Your task to perform on an android device: toggle improve location accuracy Image 0: 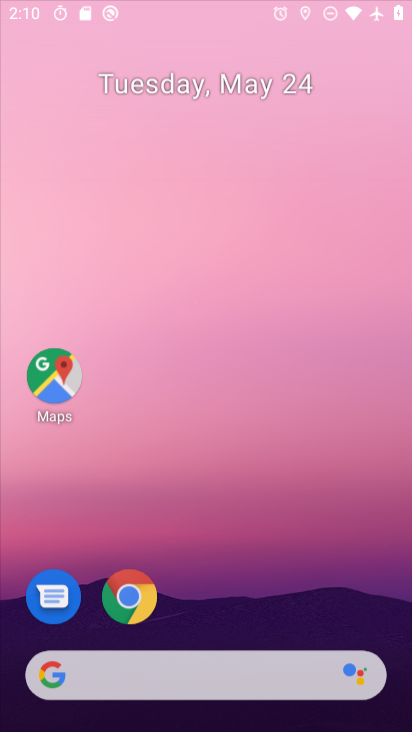
Step 0: click (241, 126)
Your task to perform on an android device: toggle improve location accuracy Image 1: 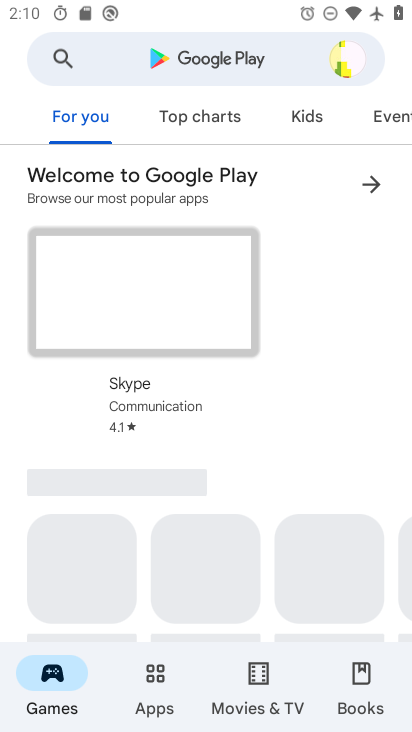
Step 1: press home button
Your task to perform on an android device: toggle improve location accuracy Image 2: 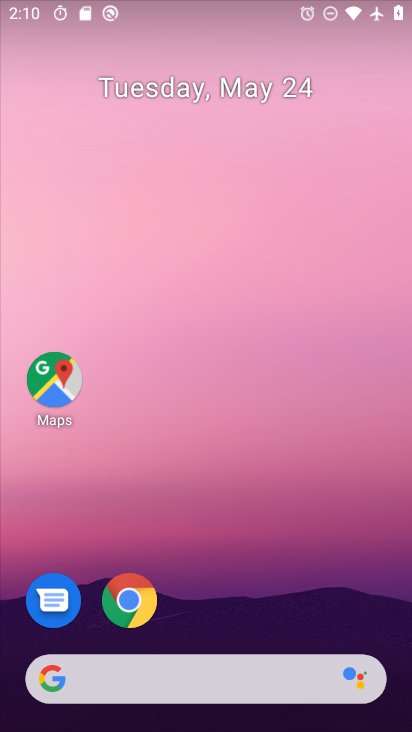
Step 2: drag from (332, 578) to (282, 192)
Your task to perform on an android device: toggle improve location accuracy Image 3: 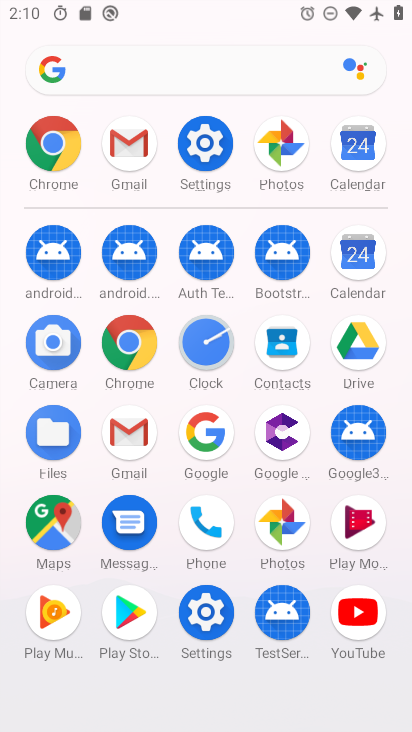
Step 3: click (203, 136)
Your task to perform on an android device: toggle improve location accuracy Image 4: 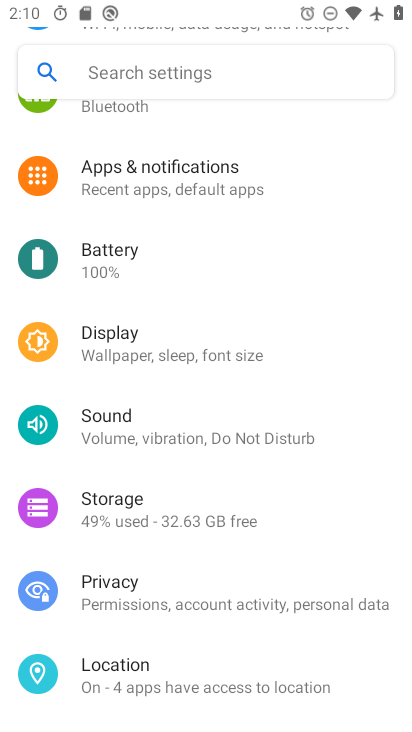
Step 4: drag from (199, 655) to (226, 591)
Your task to perform on an android device: toggle improve location accuracy Image 5: 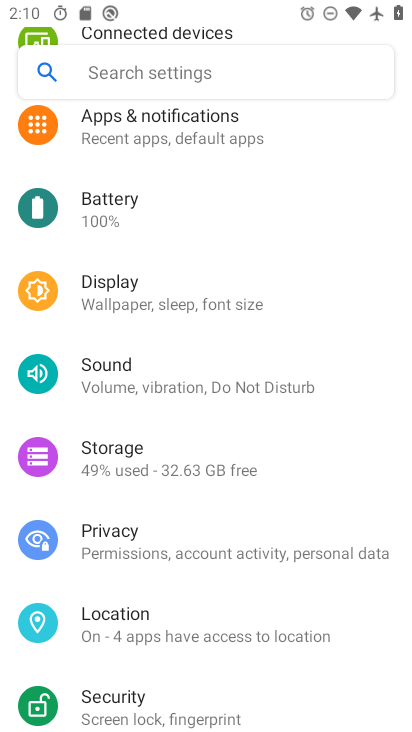
Step 5: click (185, 636)
Your task to perform on an android device: toggle improve location accuracy Image 6: 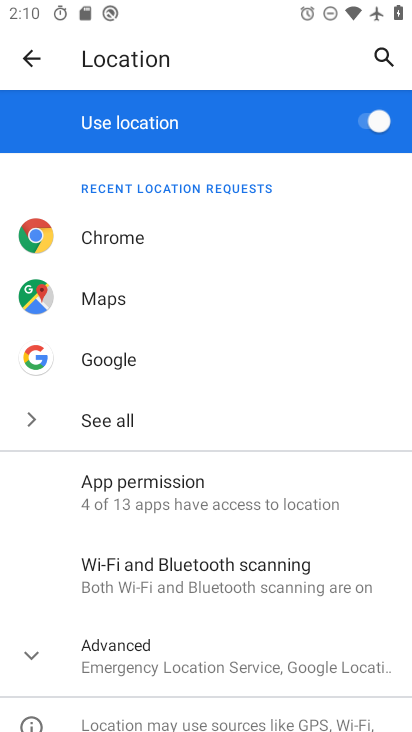
Step 6: drag from (243, 599) to (313, 155)
Your task to perform on an android device: toggle improve location accuracy Image 7: 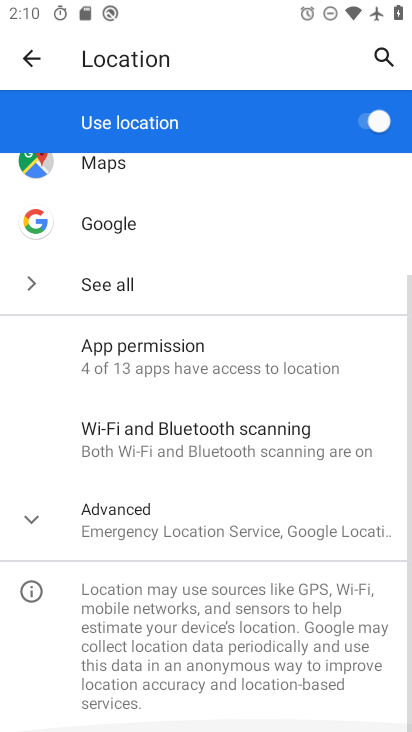
Step 7: click (141, 502)
Your task to perform on an android device: toggle improve location accuracy Image 8: 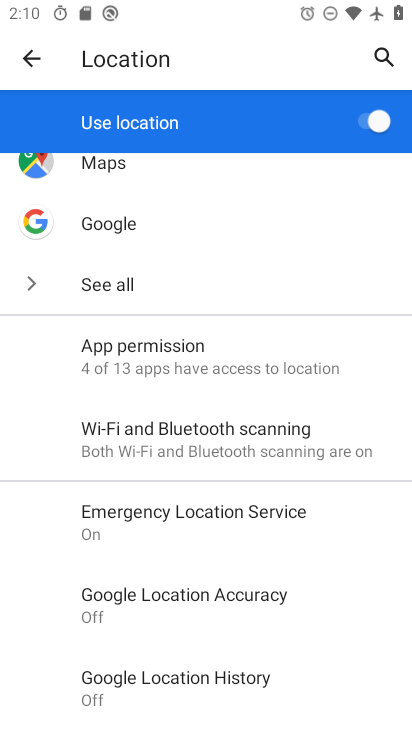
Step 8: drag from (318, 634) to (351, 314)
Your task to perform on an android device: toggle improve location accuracy Image 9: 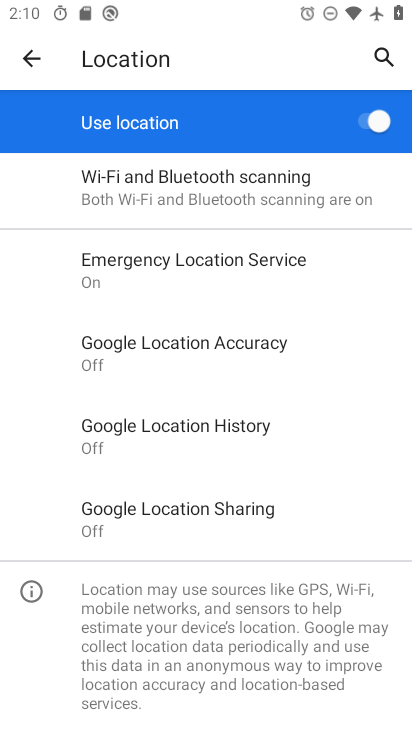
Step 9: click (263, 348)
Your task to perform on an android device: toggle improve location accuracy Image 10: 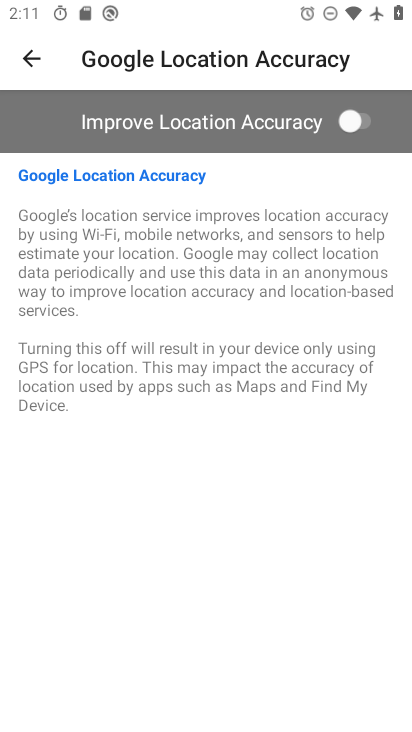
Step 10: click (342, 125)
Your task to perform on an android device: toggle improve location accuracy Image 11: 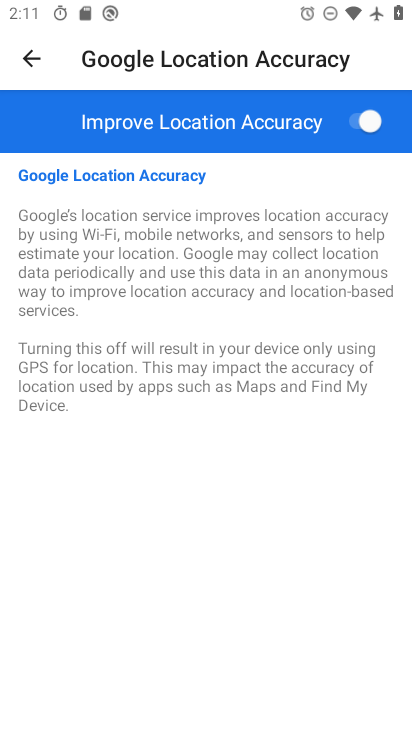
Step 11: task complete